Your task to perform on an android device: open chrome privacy settings Image 0: 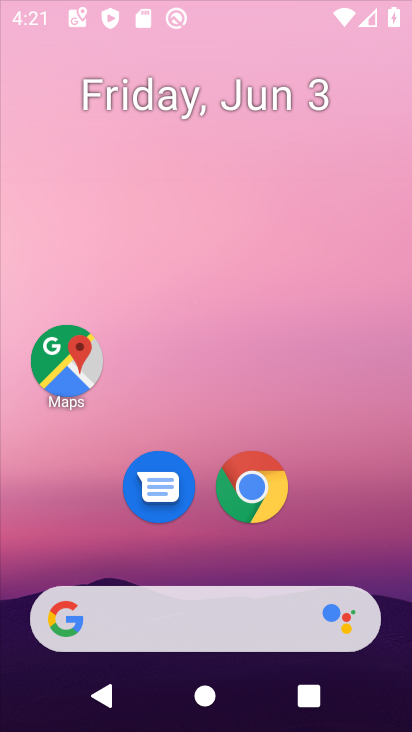
Step 0: click (313, 98)
Your task to perform on an android device: open chrome privacy settings Image 1: 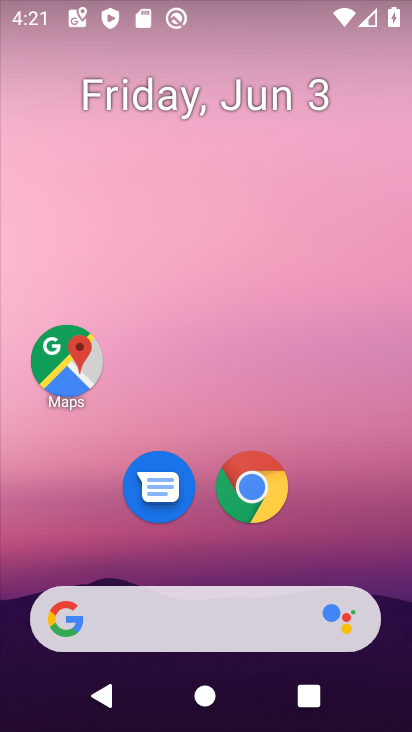
Step 1: drag from (213, 485) to (257, 210)
Your task to perform on an android device: open chrome privacy settings Image 2: 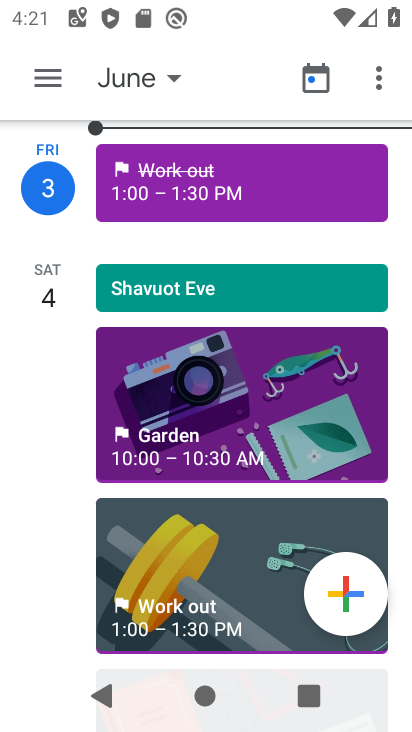
Step 2: press home button
Your task to perform on an android device: open chrome privacy settings Image 3: 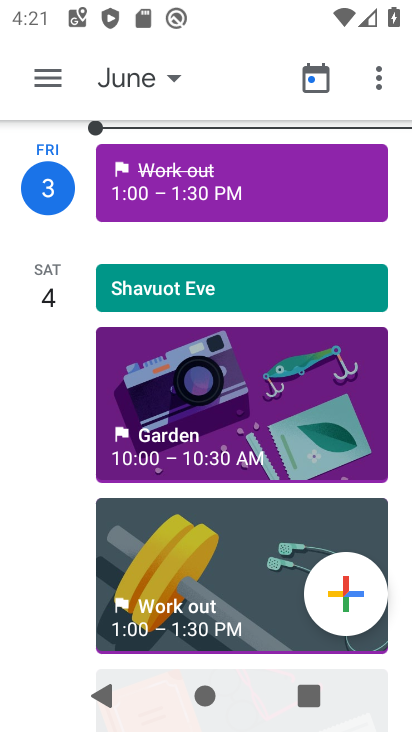
Step 3: drag from (241, 503) to (338, 13)
Your task to perform on an android device: open chrome privacy settings Image 4: 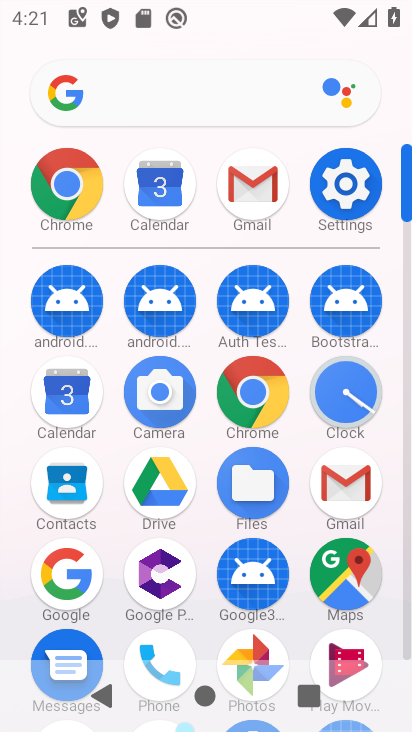
Step 4: click (359, 182)
Your task to perform on an android device: open chrome privacy settings Image 5: 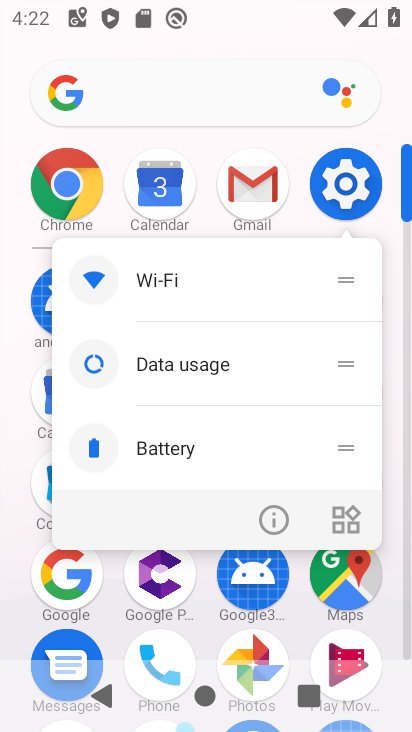
Step 5: click (266, 510)
Your task to perform on an android device: open chrome privacy settings Image 6: 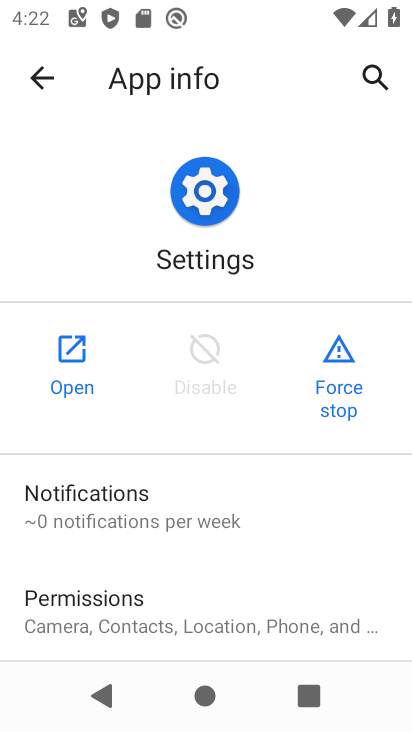
Step 6: click (81, 360)
Your task to perform on an android device: open chrome privacy settings Image 7: 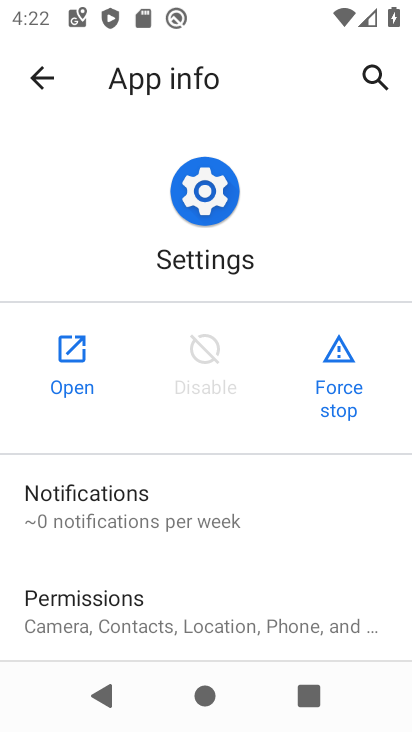
Step 7: drag from (219, 551) to (280, 5)
Your task to perform on an android device: open chrome privacy settings Image 8: 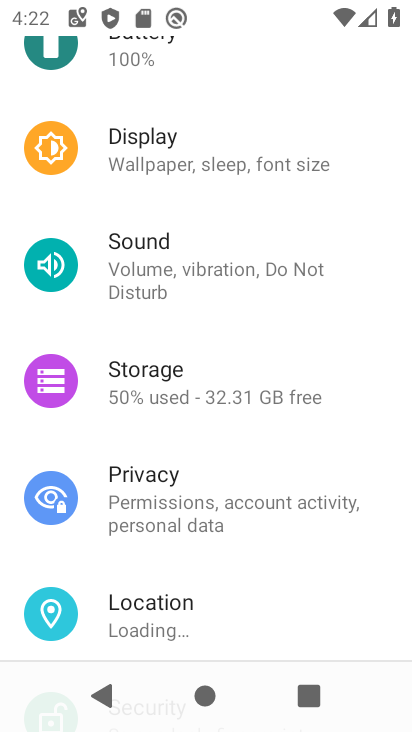
Step 8: drag from (230, 250) to (175, 722)
Your task to perform on an android device: open chrome privacy settings Image 9: 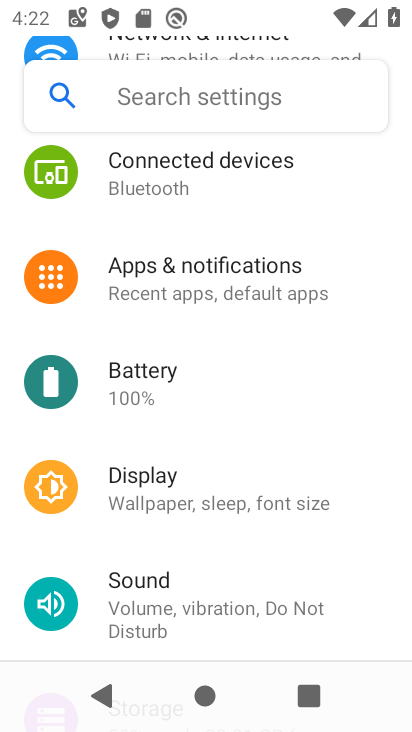
Step 9: drag from (189, 252) to (290, 678)
Your task to perform on an android device: open chrome privacy settings Image 10: 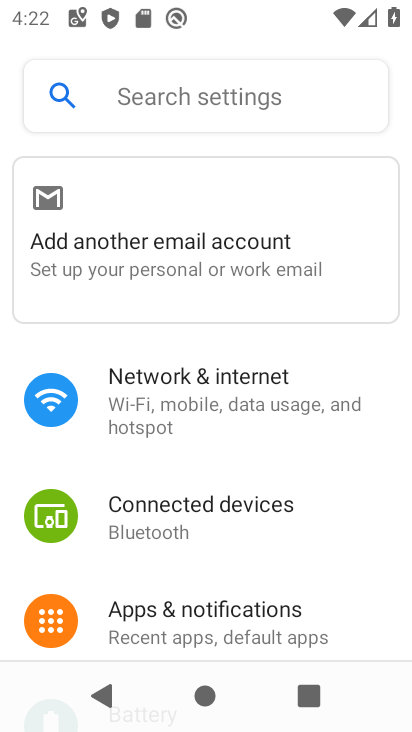
Step 10: drag from (238, 593) to (336, 30)
Your task to perform on an android device: open chrome privacy settings Image 11: 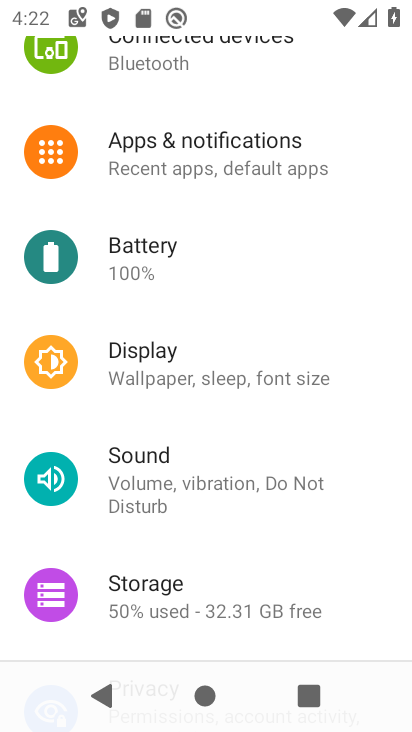
Step 11: press home button
Your task to perform on an android device: open chrome privacy settings Image 12: 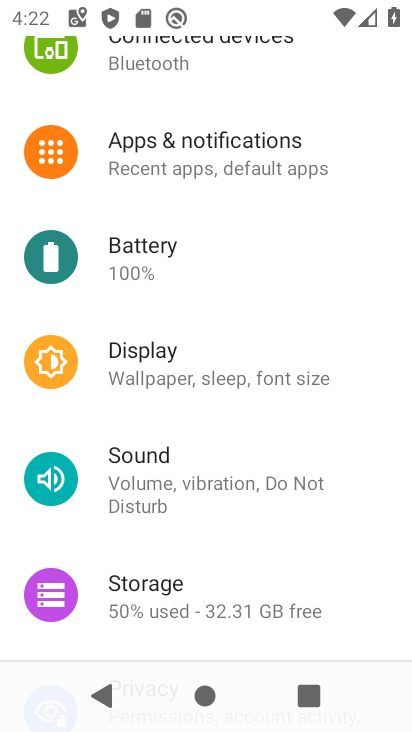
Step 12: drag from (197, 540) to (271, 65)
Your task to perform on an android device: open chrome privacy settings Image 13: 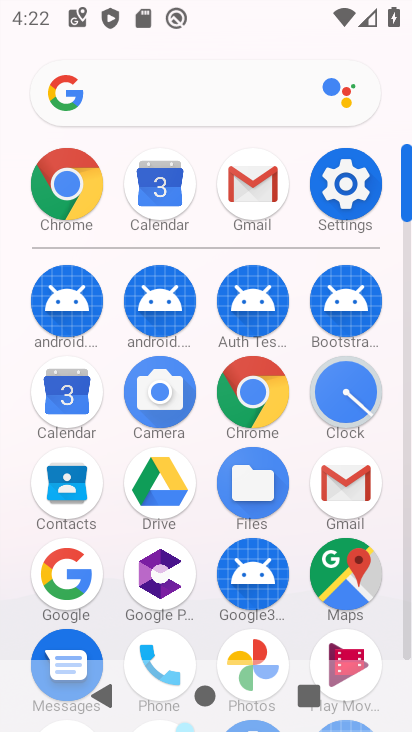
Step 13: click (344, 170)
Your task to perform on an android device: open chrome privacy settings Image 14: 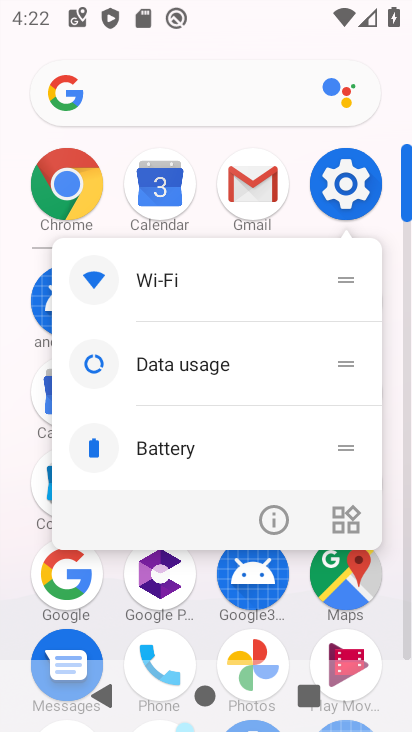
Step 14: click (76, 182)
Your task to perform on an android device: open chrome privacy settings Image 15: 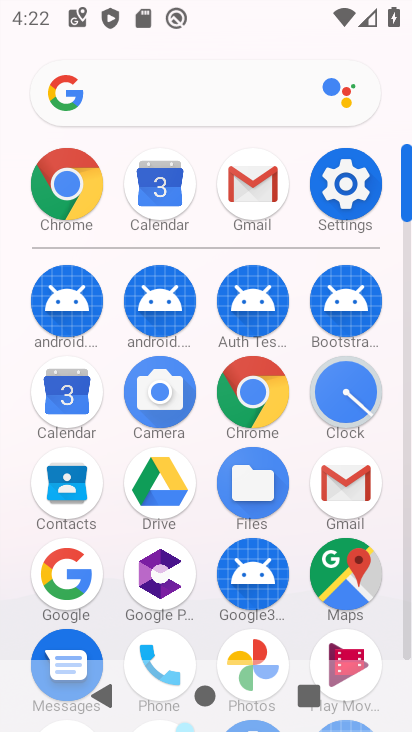
Step 15: click (76, 182)
Your task to perform on an android device: open chrome privacy settings Image 16: 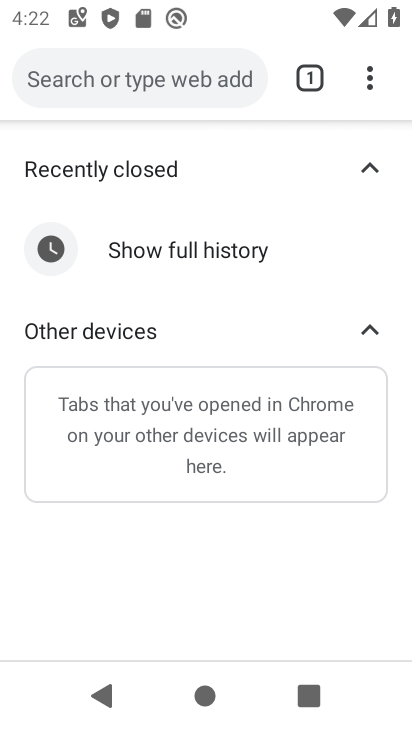
Step 16: click (379, 75)
Your task to perform on an android device: open chrome privacy settings Image 17: 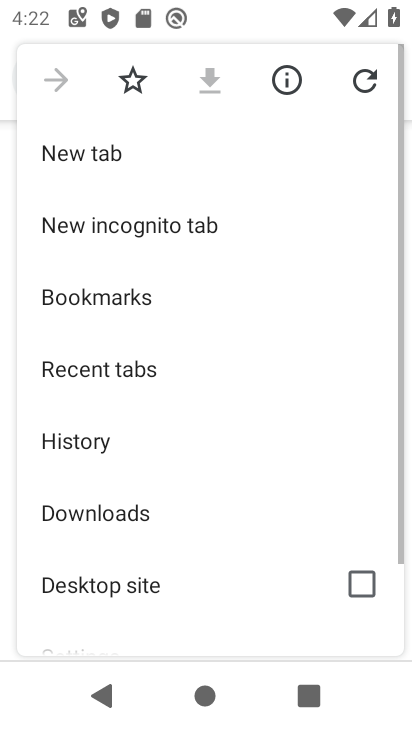
Step 17: drag from (138, 512) to (220, 13)
Your task to perform on an android device: open chrome privacy settings Image 18: 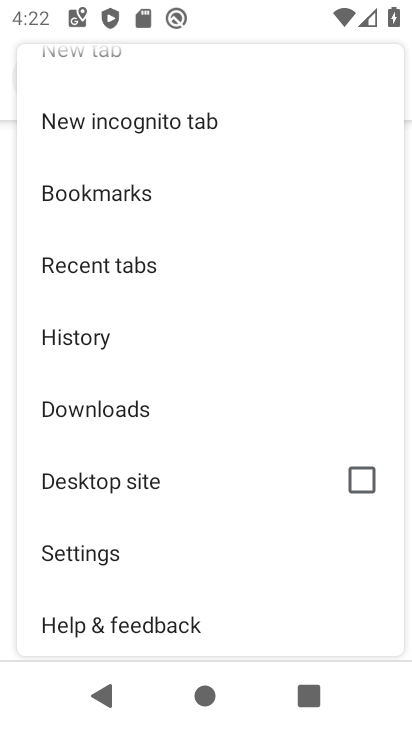
Step 18: click (141, 571)
Your task to perform on an android device: open chrome privacy settings Image 19: 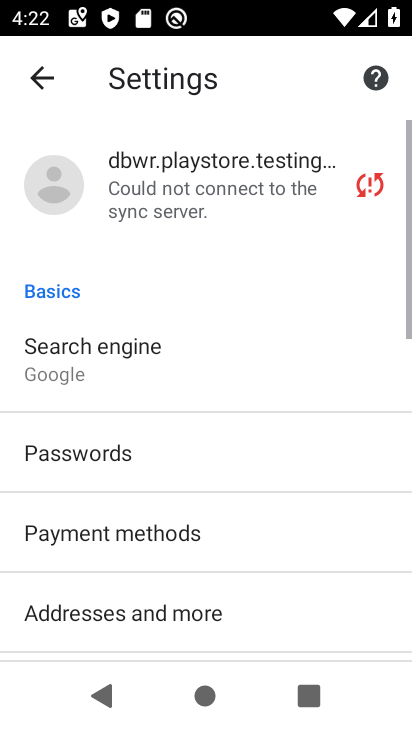
Step 19: drag from (142, 563) to (211, 97)
Your task to perform on an android device: open chrome privacy settings Image 20: 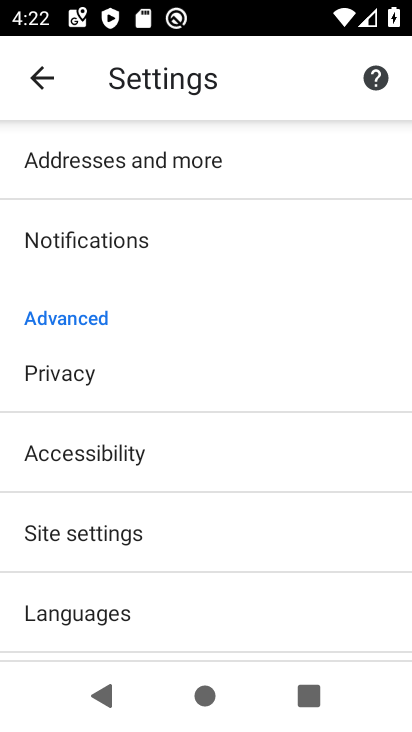
Step 20: click (129, 375)
Your task to perform on an android device: open chrome privacy settings Image 21: 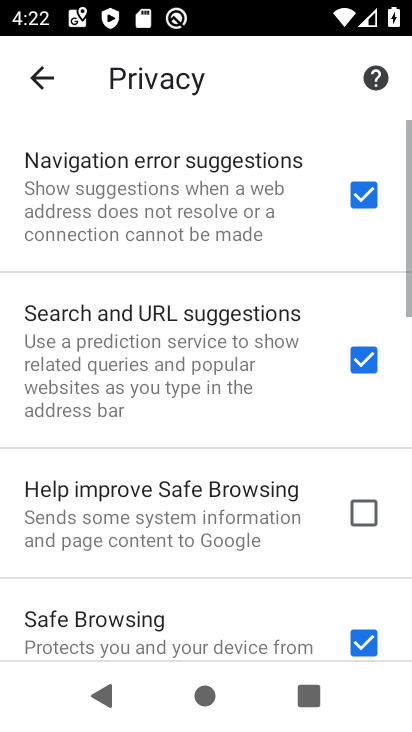
Step 21: task complete